Your task to perform on an android device: check the backup settings in the google photos Image 0: 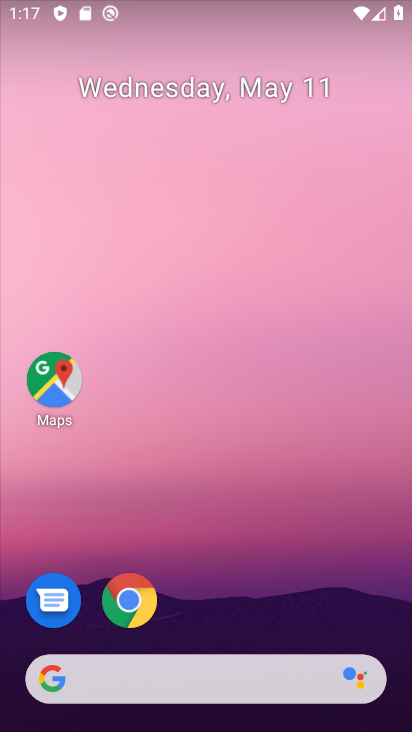
Step 0: drag from (266, 420) to (279, 275)
Your task to perform on an android device: check the backup settings in the google photos Image 1: 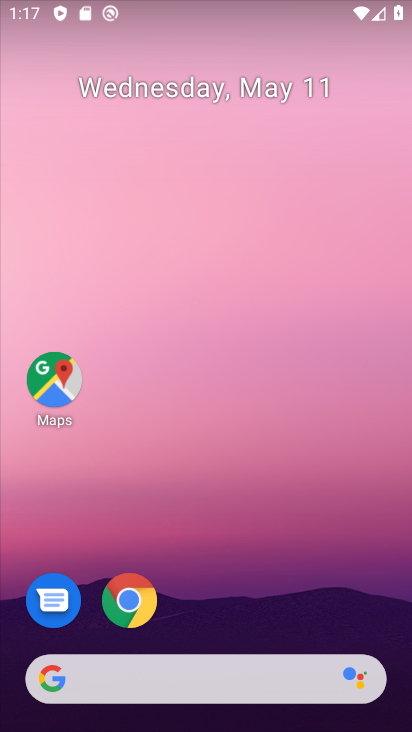
Step 1: drag from (249, 644) to (289, 286)
Your task to perform on an android device: check the backup settings in the google photos Image 2: 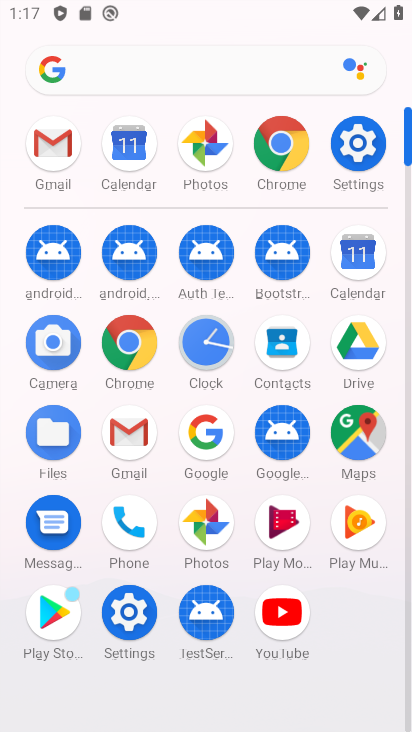
Step 2: click (212, 522)
Your task to perform on an android device: check the backup settings in the google photos Image 3: 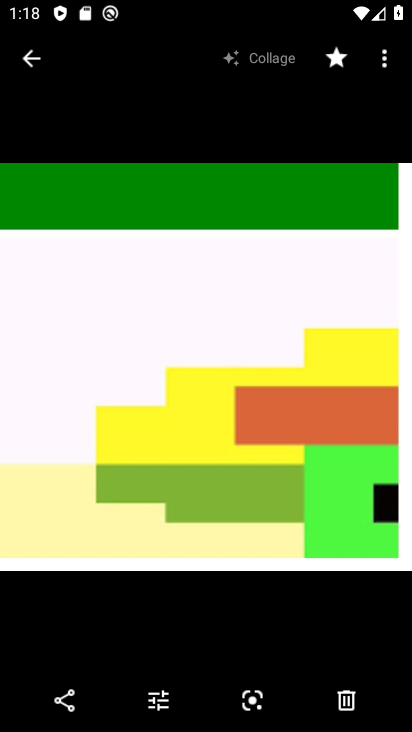
Step 3: click (28, 60)
Your task to perform on an android device: check the backup settings in the google photos Image 4: 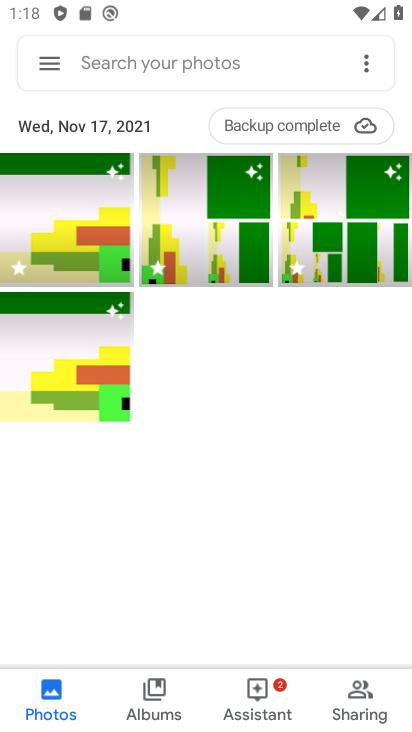
Step 4: click (49, 60)
Your task to perform on an android device: check the backup settings in the google photos Image 5: 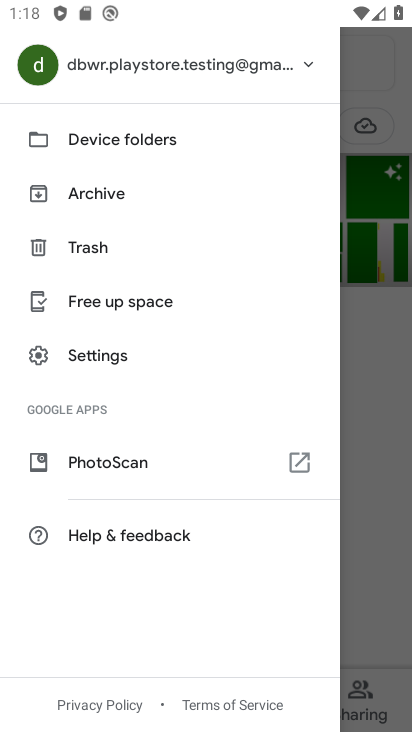
Step 5: click (100, 351)
Your task to perform on an android device: check the backup settings in the google photos Image 6: 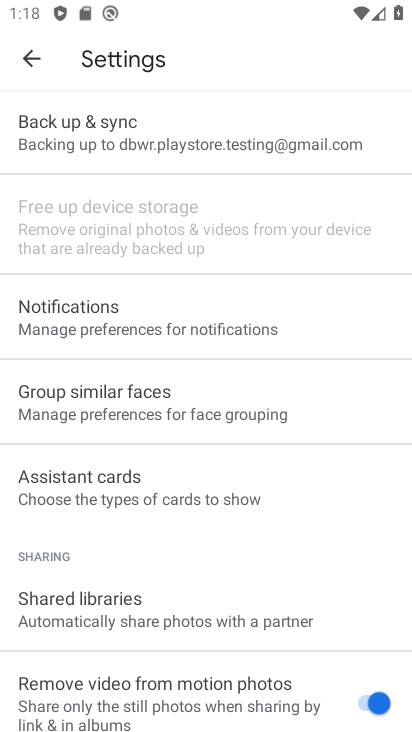
Step 6: click (119, 125)
Your task to perform on an android device: check the backup settings in the google photos Image 7: 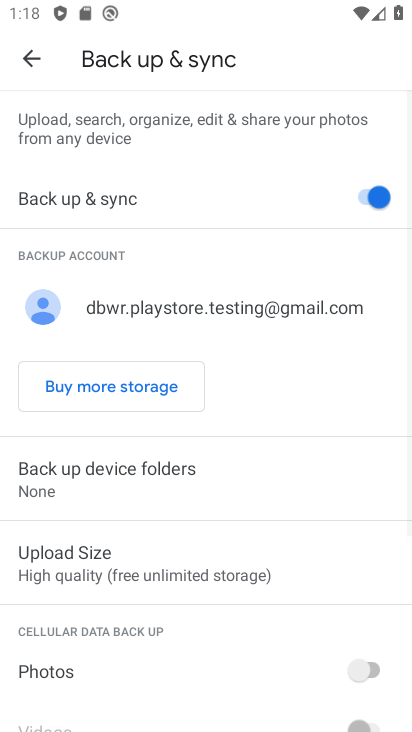
Step 7: task complete